Your task to perform on an android device: turn on sleep mode Image 0: 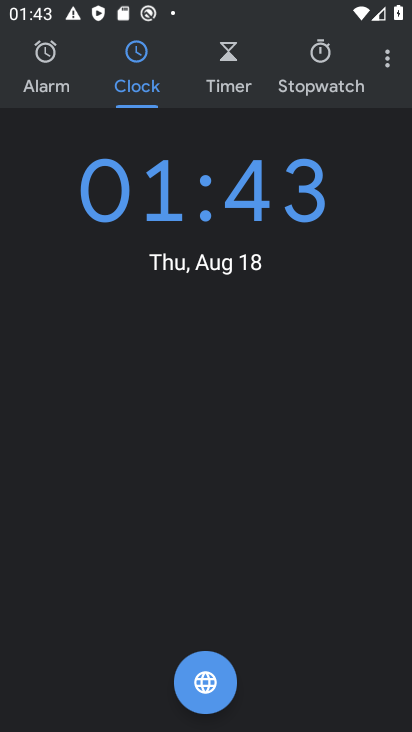
Step 0: press home button
Your task to perform on an android device: turn on sleep mode Image 1: 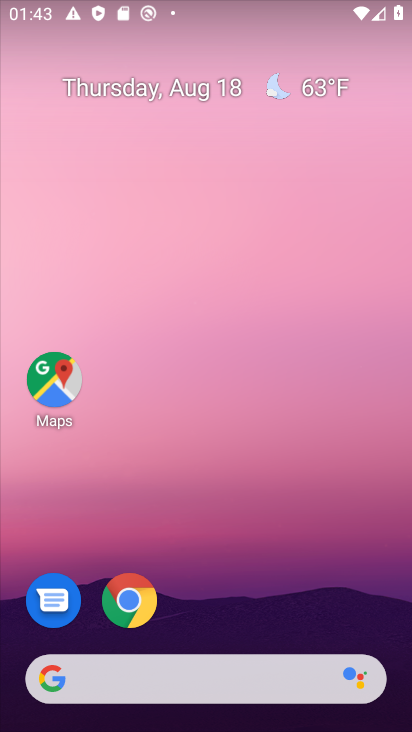
Step 1: drag from (253, 624) to (191, 204)
Your task to perform on an android device: turn on sleep mode Image 2: 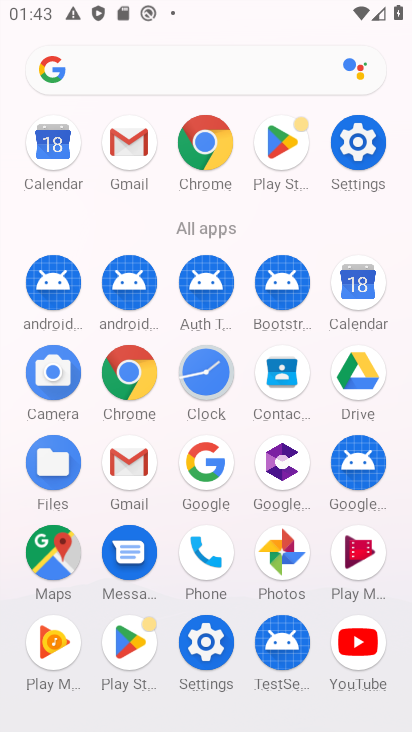
Step 2: click (358, 133)
Your task to perform on an android device: turn on sleep mode Image 3: 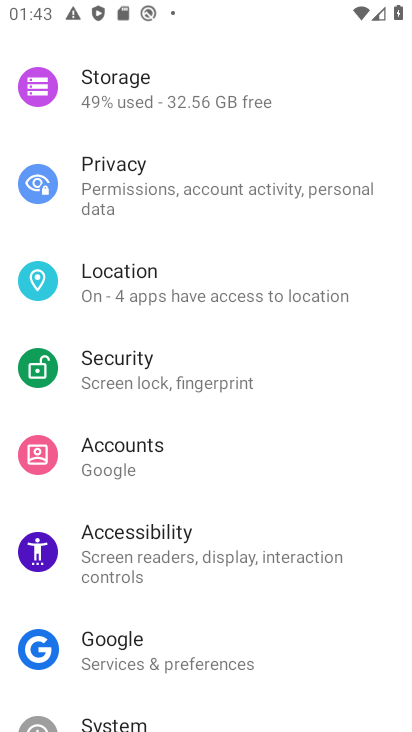
Step 3: drag from (208, 219) to (202, 417)
Your task to perform on an android device: turn on sleep mode Image 4: 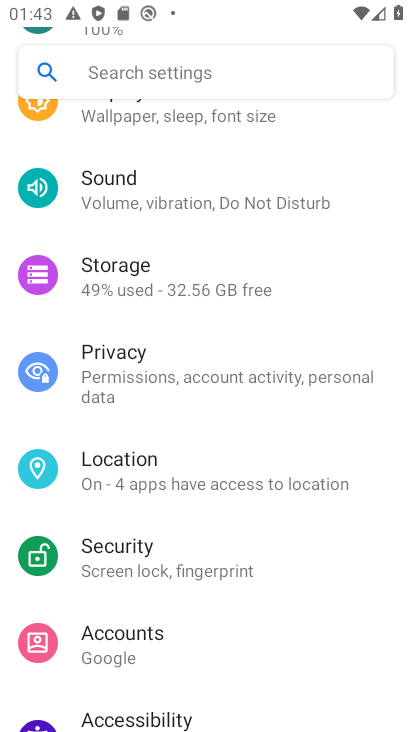
Step 4: click (163, 114)
Your task to perform on an android device: turn on sleep mode Image 5: 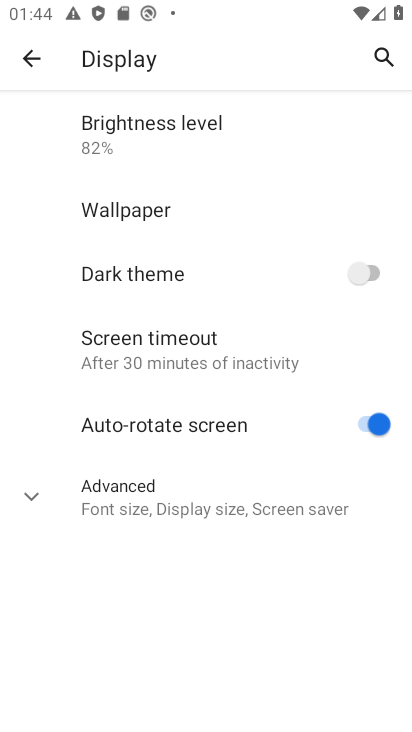
Step 5: task complete